Your task to perform on an android device: Is it going to rain tomorrow? Image 0: 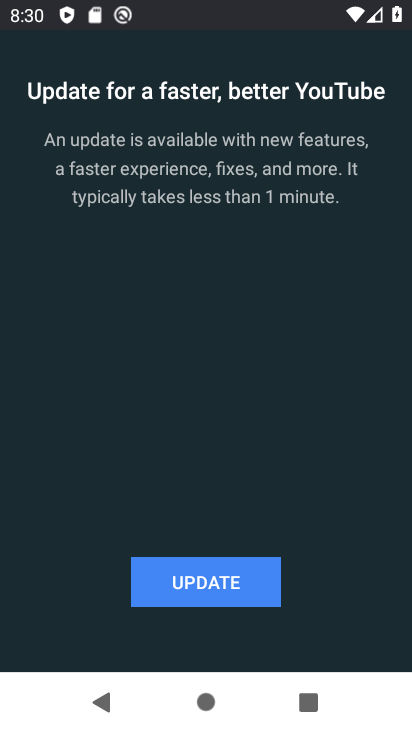
Step 0: press home button
Your task to perform on an android device: Is it going to rain tomorrow? Image 1: 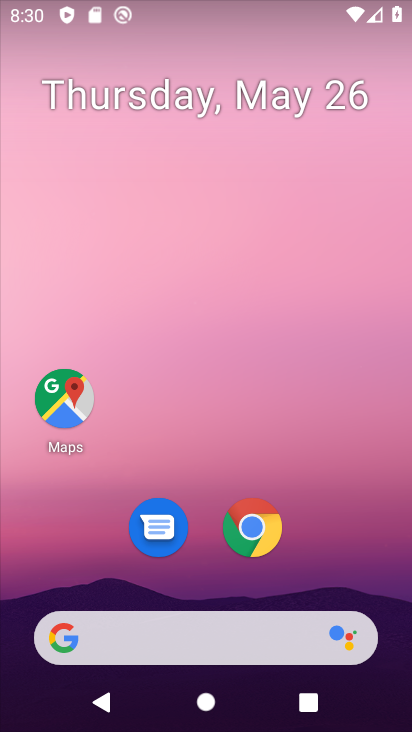
Step 1: click (259, 524)
Your task to perform on an android device: Is it going to rain tomorrow? Image 2: 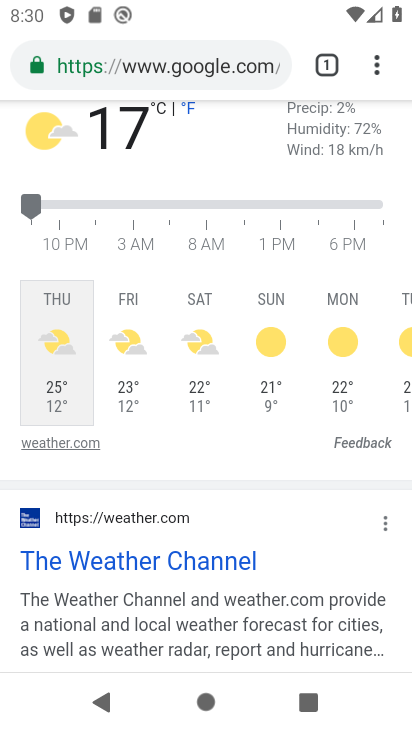
Step 2: click (121, 336)
Your task to perform on an android device: Is it going to rain tomorrow? Image 3: 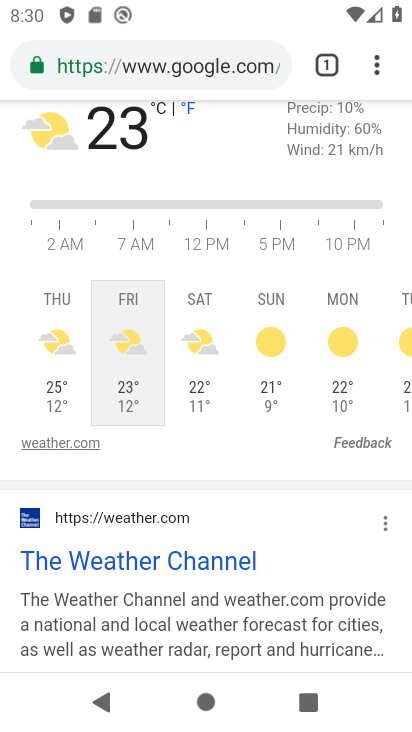
Step 3: task complete